Your task to perform on an android device: What's the weather going to be this weekend? Image 0: 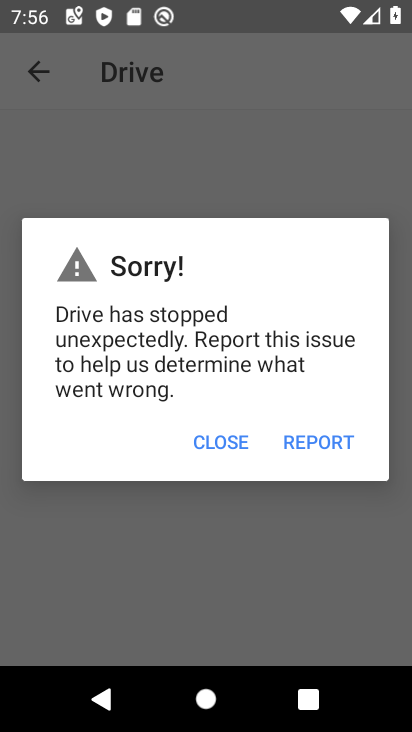
Step 0: press home button
Your task to perform on an android device: What's the weather going to be this weekend? Image 1: 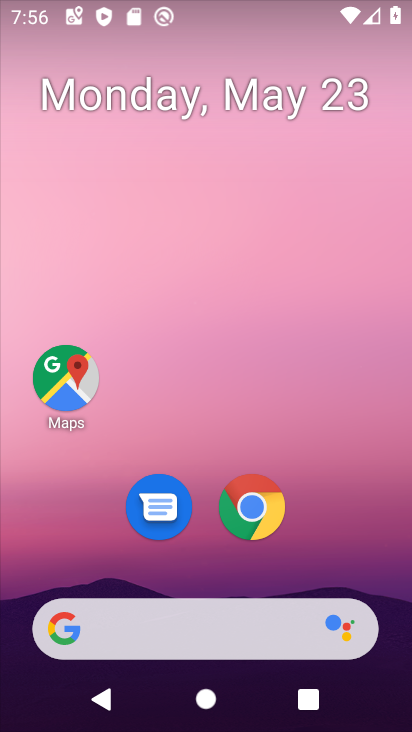
Step 1: drag from (335, 564) to (317, 99)
Your task to perform on an android device: What's the weather going to be this weekend? Image 2: 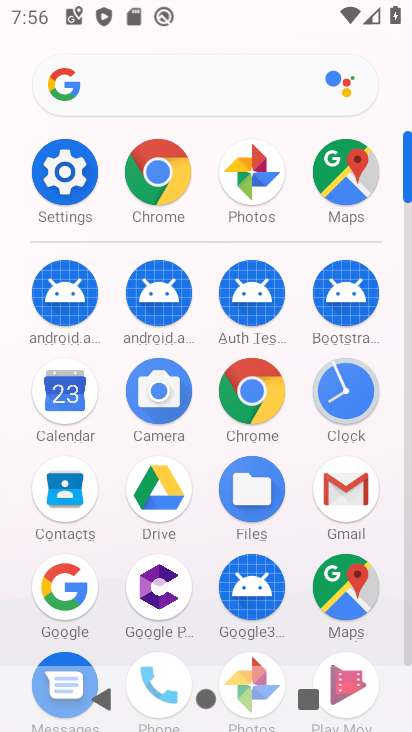
Step 2: click (153, 206)
Your task to perform on an android device: What's the weather going to be this weekend? Image 3: 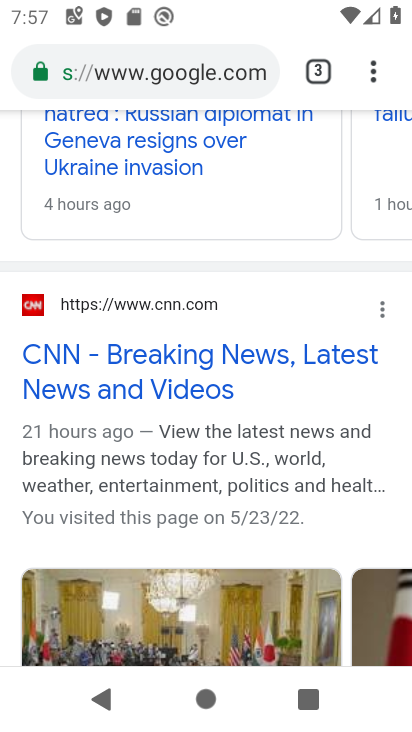
Step 3: click (319, 76)
Your task to perform on an android device: What's the weather going to be this weekend? Image 4: 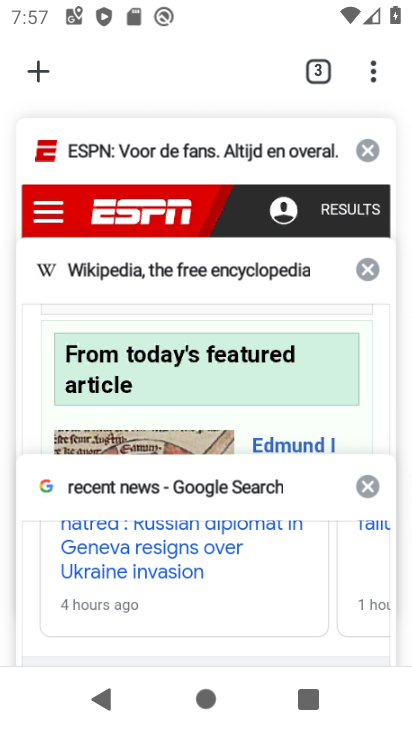
Step 4: click (32, 69)
Your task to perform on an android device: What's the weather going to be this weekend? Image 5: 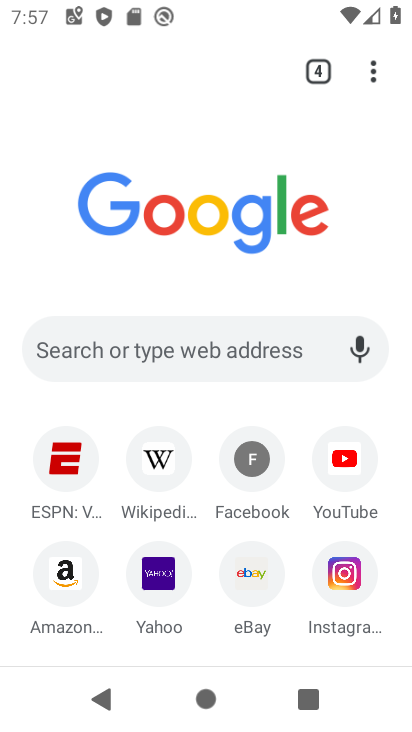
Step 5: click (157, 339)
Your task to perform on an android device: What's the weather going to be this weekend? Image 6: 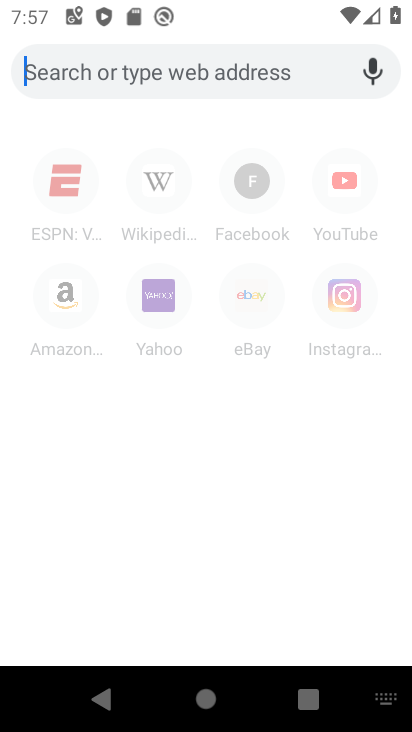
Step 6: type "what's the weather going to be this weekend "
Your task to perform on an android device: What's the weather going to be this weekend? Image 7: 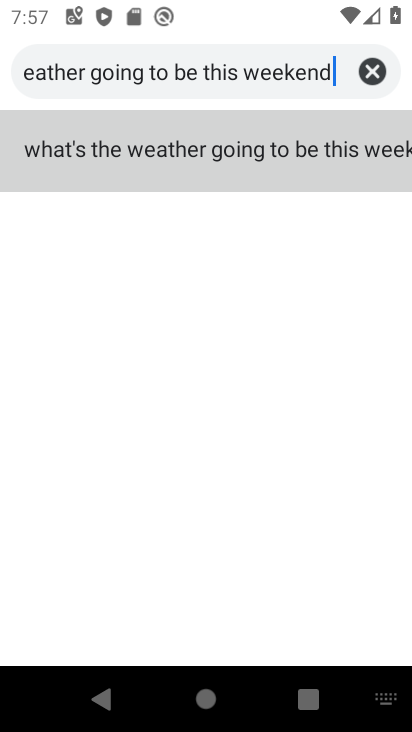
Step 7: click (212, 146)
Your task to perform on an android device: What's the weather going to be this weekend? Image 8: 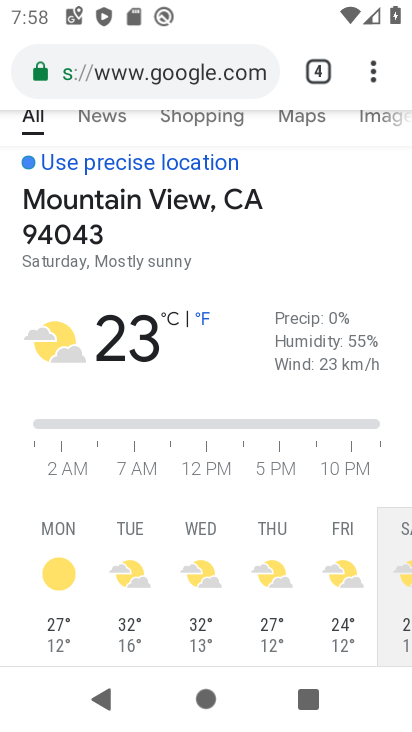
Step 8: task complete